Your task to perform on an android device: Go to Wikipedia Image 0: 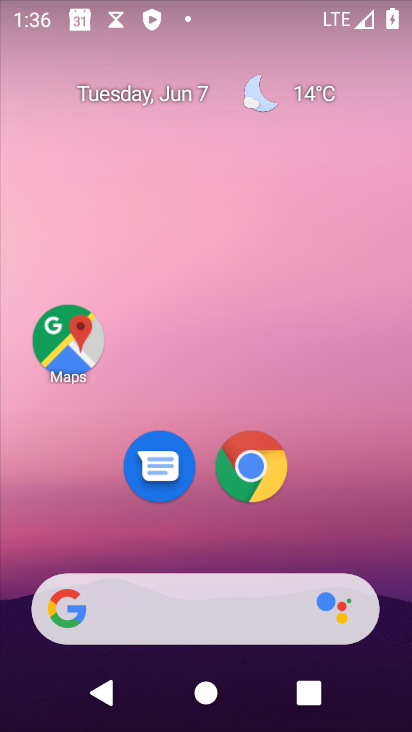
Step 0: click (244, 468)
Your task to perform on an android device: Go to Wikipedia Image 1: 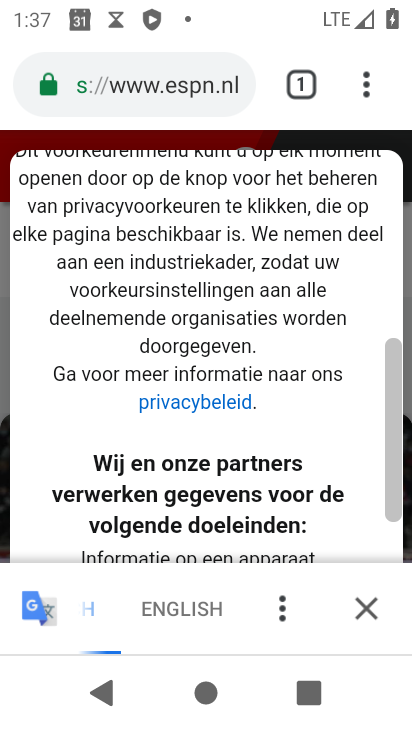
Step 1: click (295, 81)
Your task to perform on an android device: Go to Wikipedia Image 2: 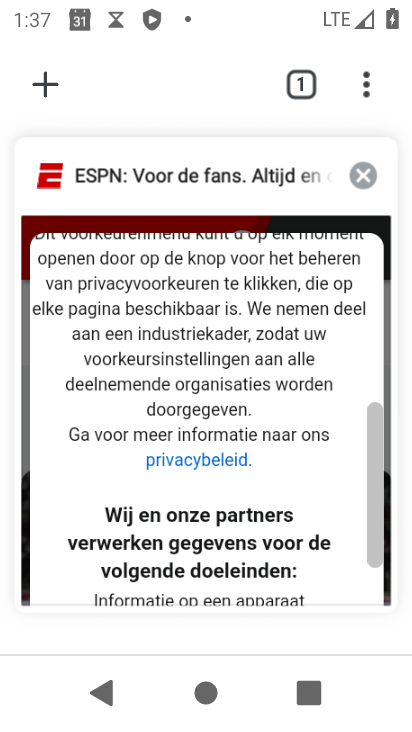
Step 2: click (50, 76)
Your task to perform on an android device: Go to Wikipedia Image 3: 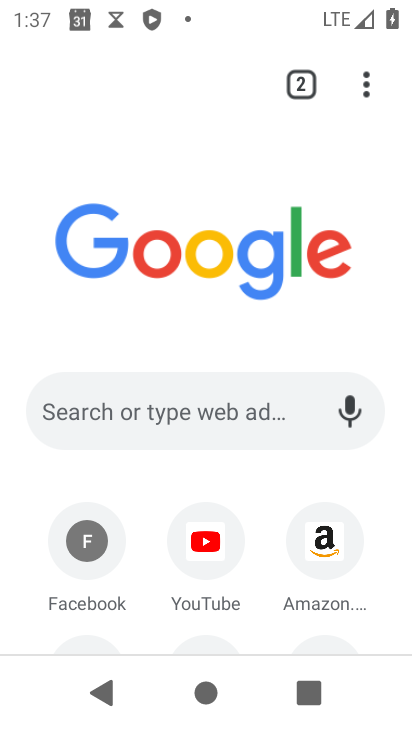
Step 3: drag from (188, 614) to (264, 163)
Your task to perform on an android device: Go to Wikipedia Image 4: 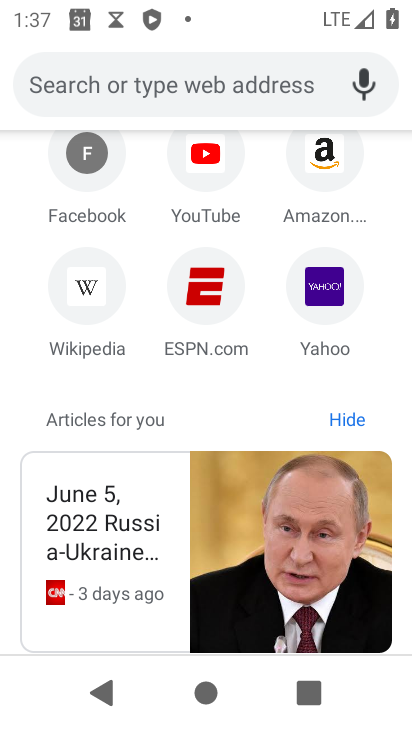
Step 4: click (90, 295)
Your task to perform on an android device: Go to Wikipedia Image 5: 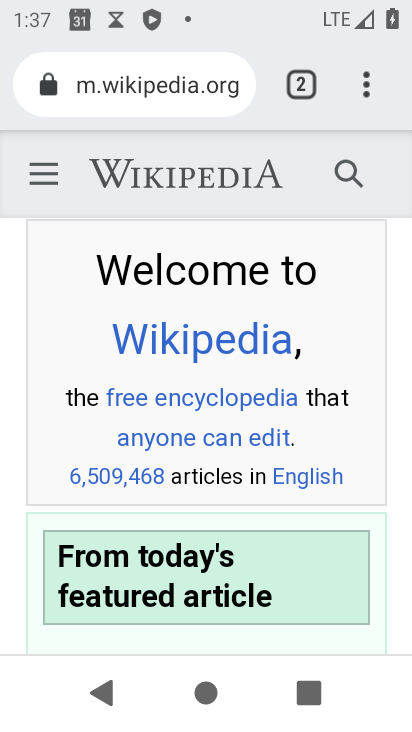
Step 5: task complete